Your task to perform on an android device: Add acer nitro to the cart on bestbuy Image 0: 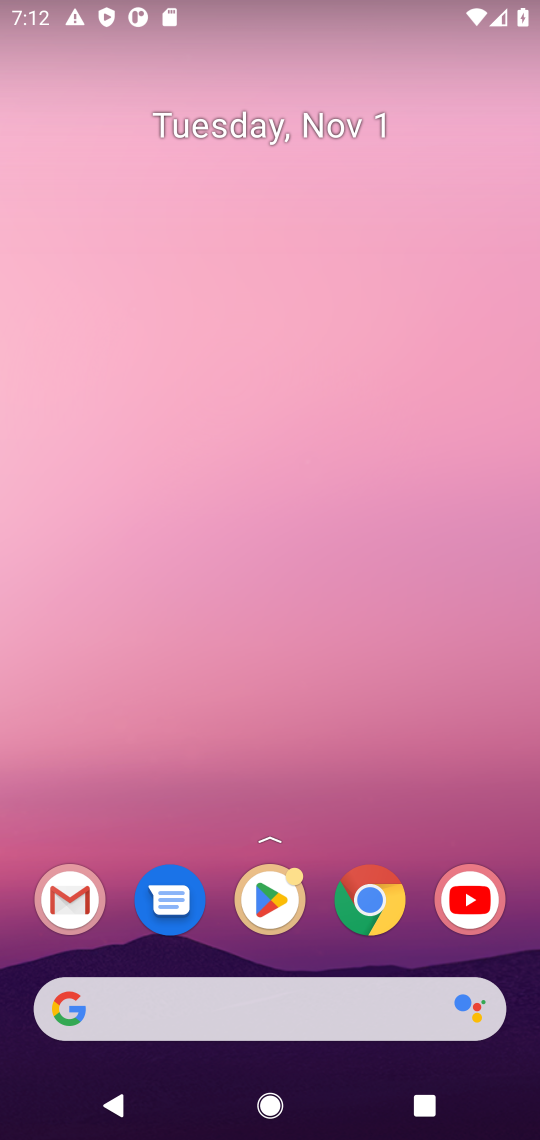
Step 0: drag from (314, 959) to (351, 139)
Your task to perform on an android device: Add acer nitro to the cart on bestbuy Image 1: 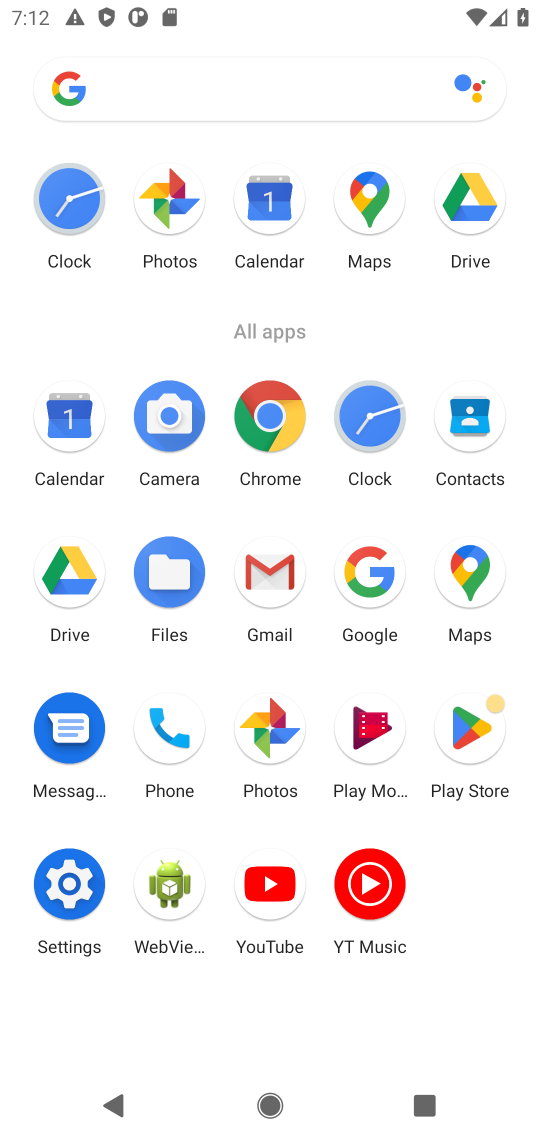
Step 1: click (270, 426)
Your task to perform on an android device: Add acer nitro to the cart on bestbuy Image 2: 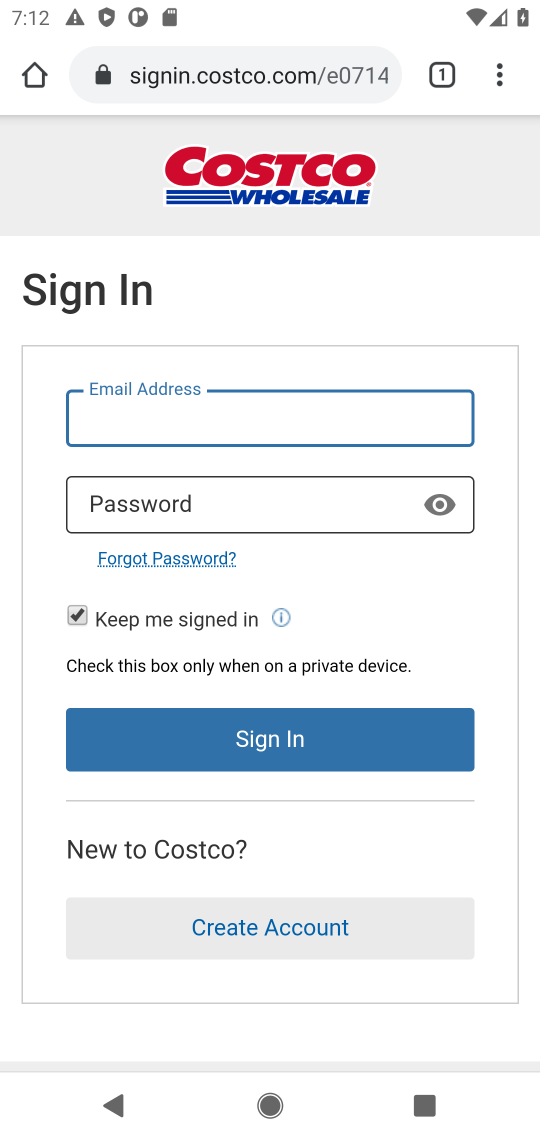
Step 2: click (285, 82)
Your task to perform on an android device: Add acer nitro to the cart on bestbuy Image 3: 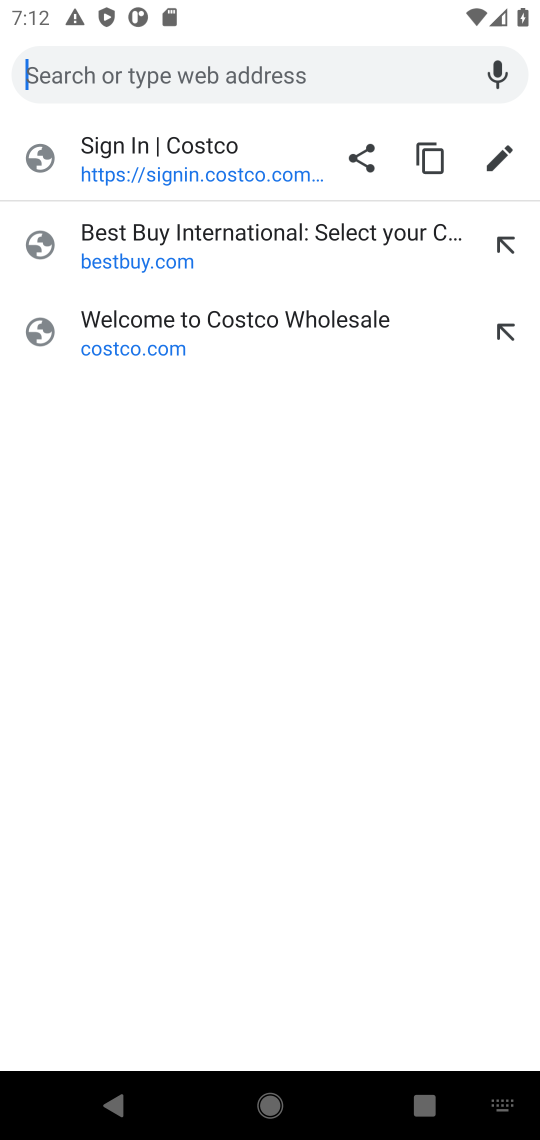
Step 3: type "bestbuy.com"
Your task to perform on an android device: Add acer nitro to the cart on bestbuy Image 4: 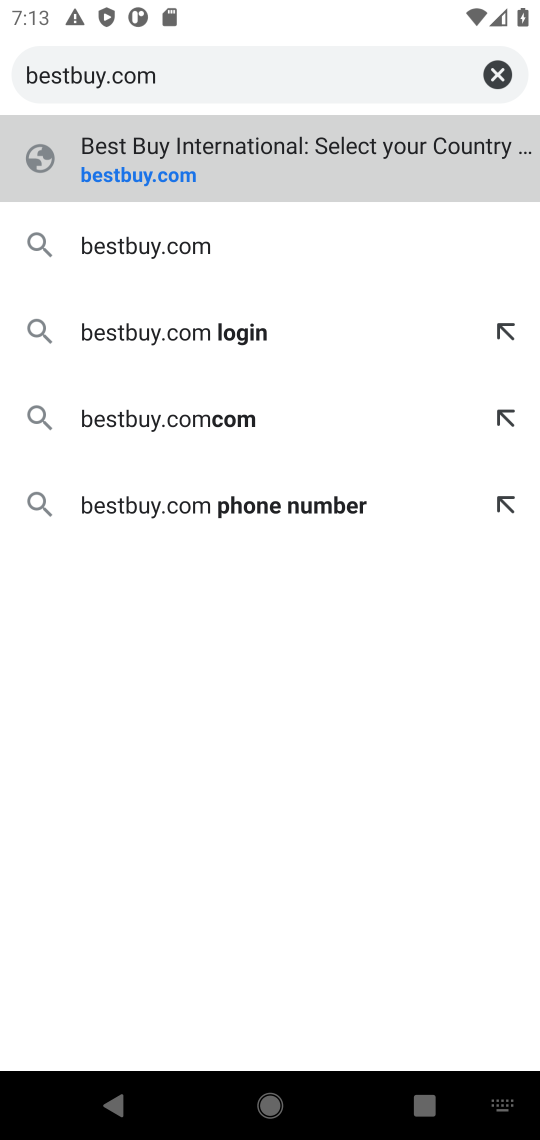
Step 4: click (273, 195)
Your task to perform on an android device: Add acer nitro to the cart on bestbuy Image 5: 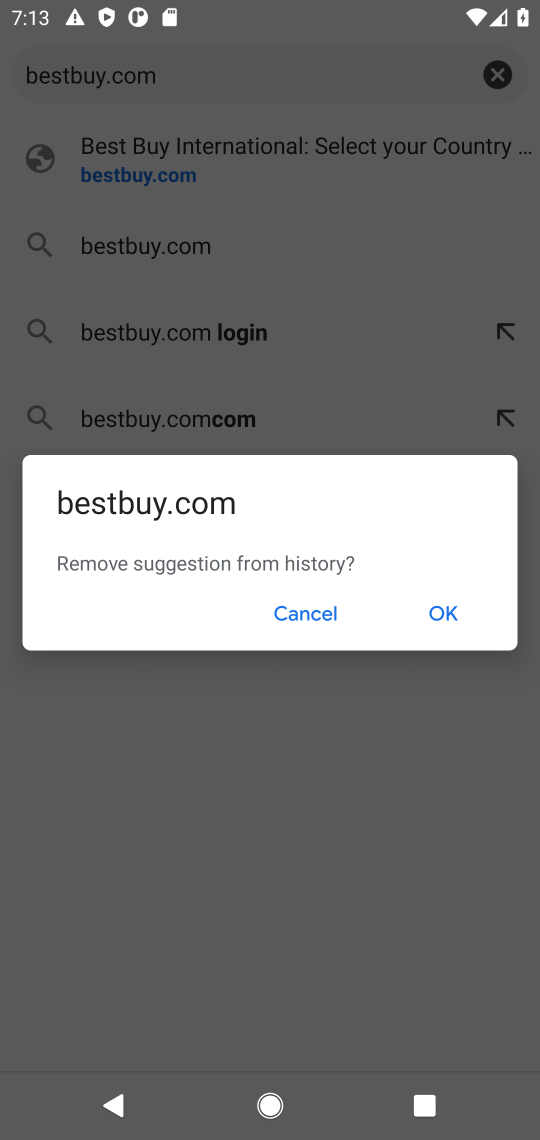
Step 5: click (309, 615)
Your task to perform on an android device: Add acer nitro to the cart on bestbuy Image 6: 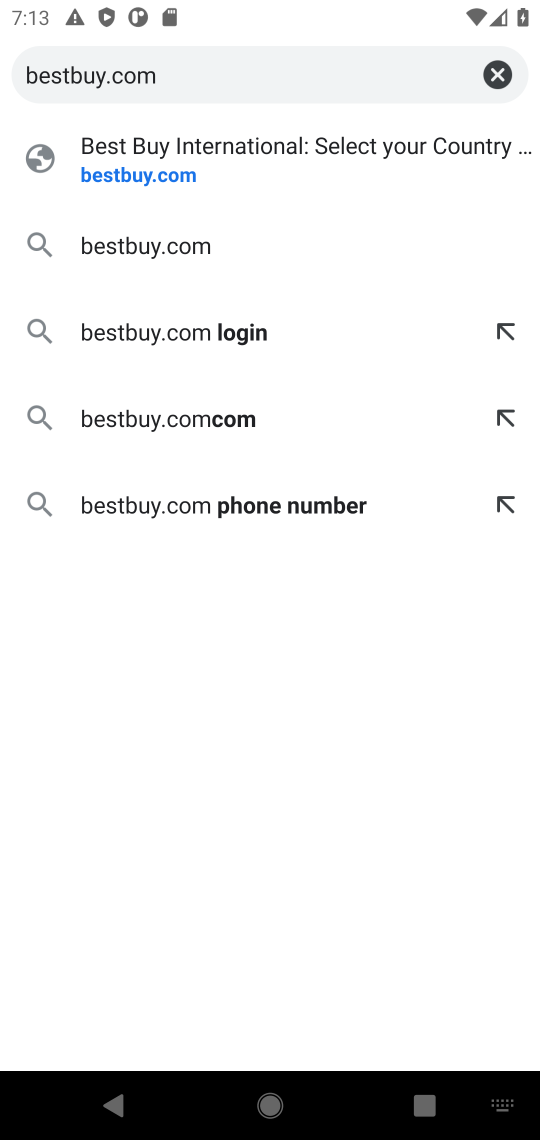
Step 6: click (169, 174)
Your task to perform on an android device: Add acer nitro to the cart on bestbuy Image 7: 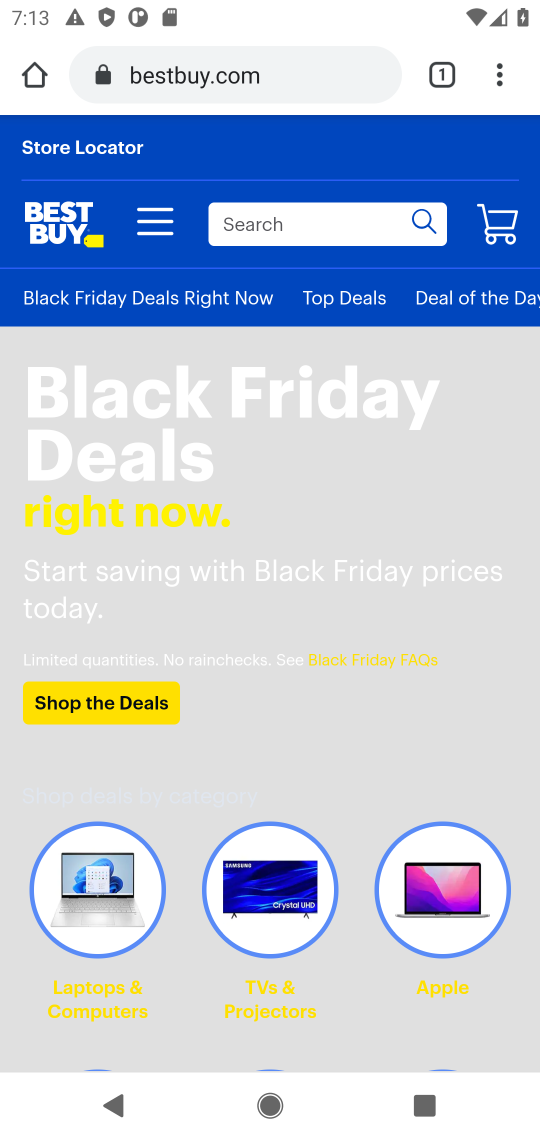
Step 7: click (280, 232)
Your task to perform on an android device: Add acer nitro to the cart on bestbuy Image 8: 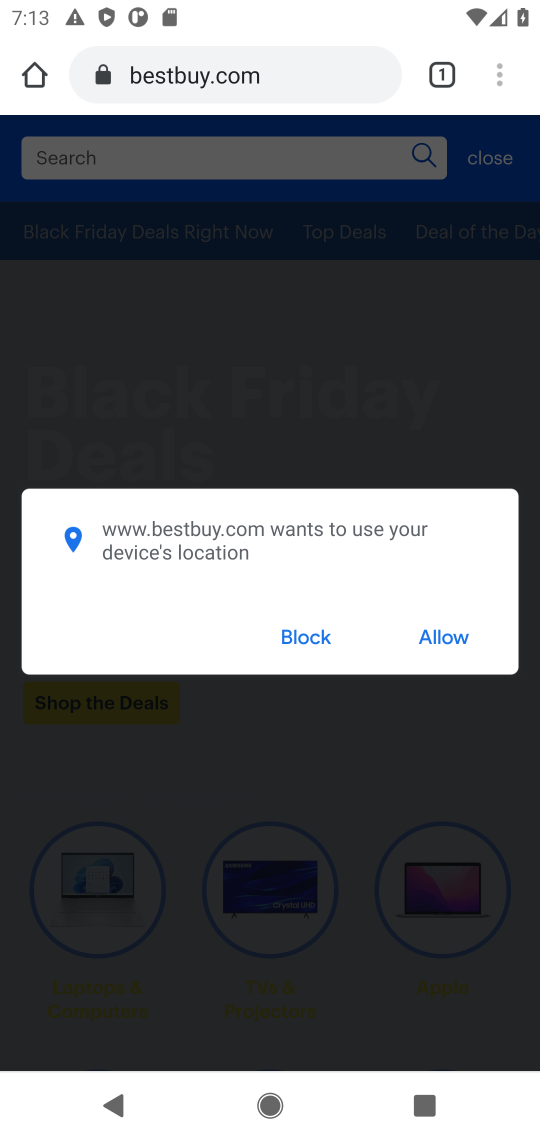
Step 8: type "acer nitro"
Your task to perform on an android device: Add acer nitro to the cart on bestbuy Image 9: 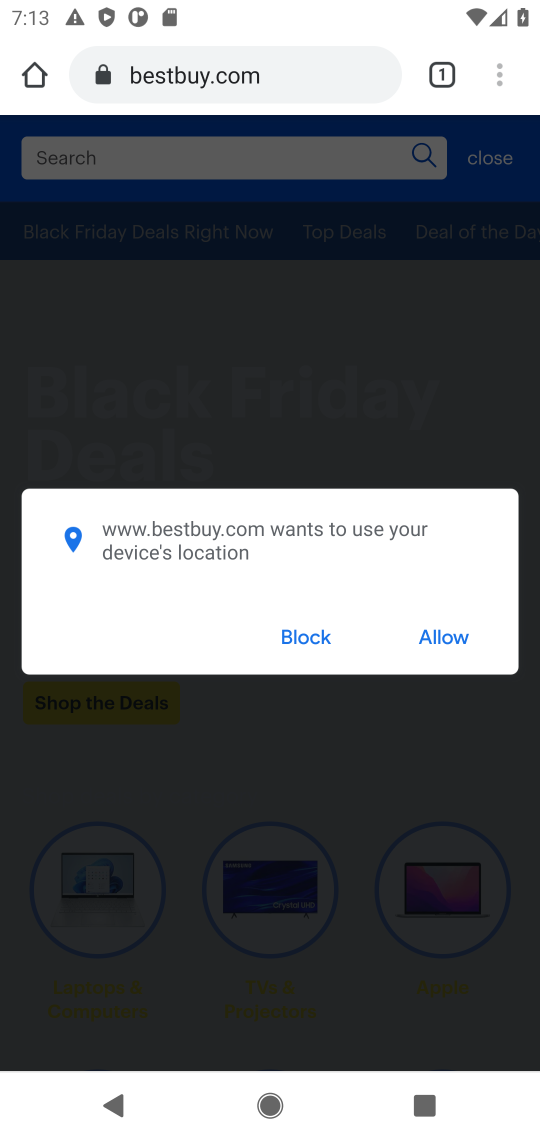
Step 9: press enter
Your task to perform on an android device: Add acer nitro to the cart on bestbuy Image 10: 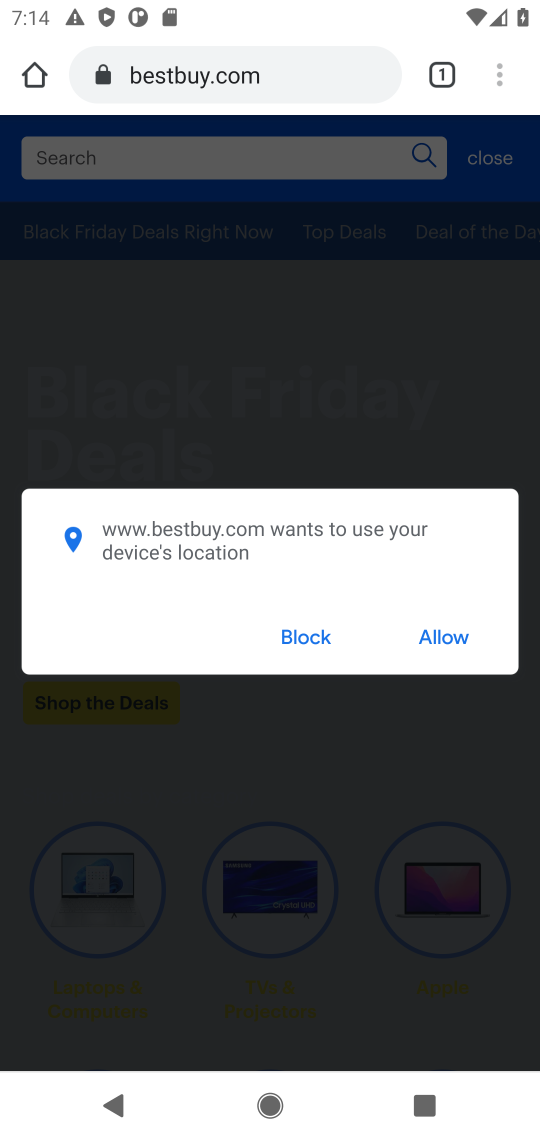
Step 10: click (299, 630)
Your task to perform on an android device: Add acer nitro to the cart on bestbuy Image 11: 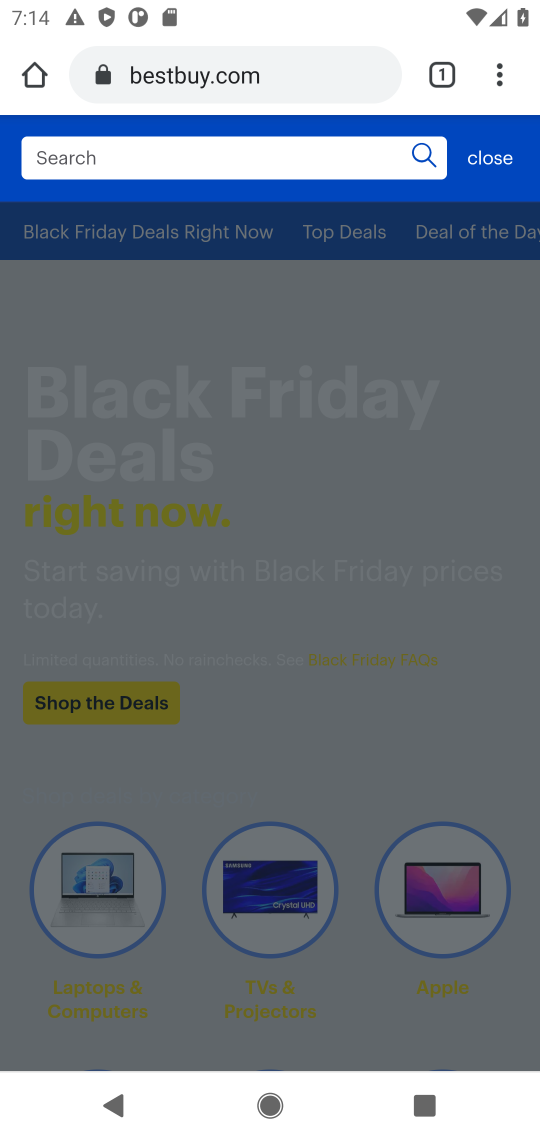
Step 11: click (353, 168)
Your task to perform on an android device: Add acer nitro to the cart on bestbuy Image 12: 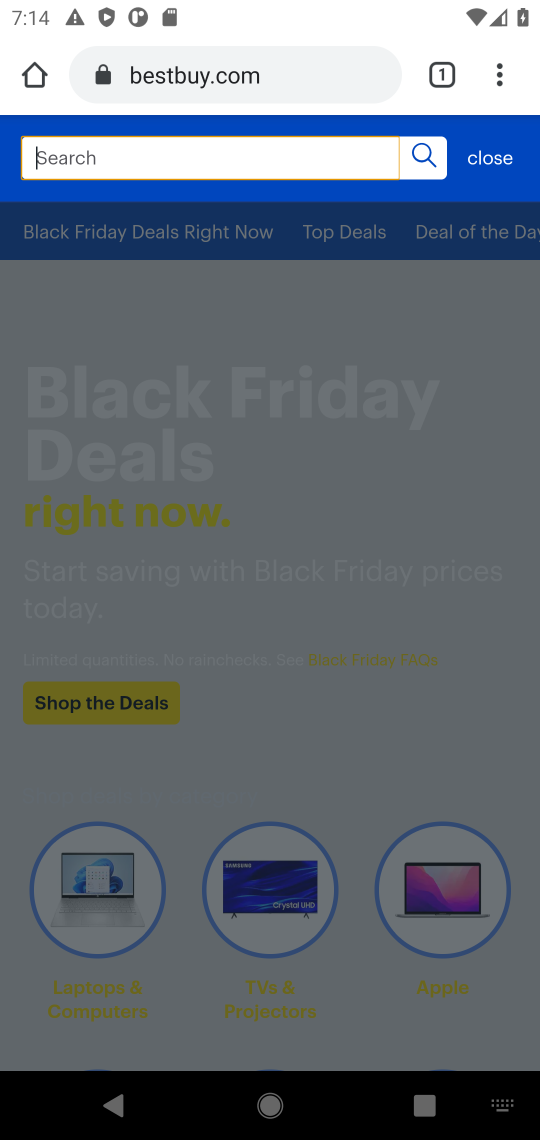
Step 12: type "acer nitro"
Your task to perform on an android device: Add acer nitro to the cart on bestbuy Image 13: 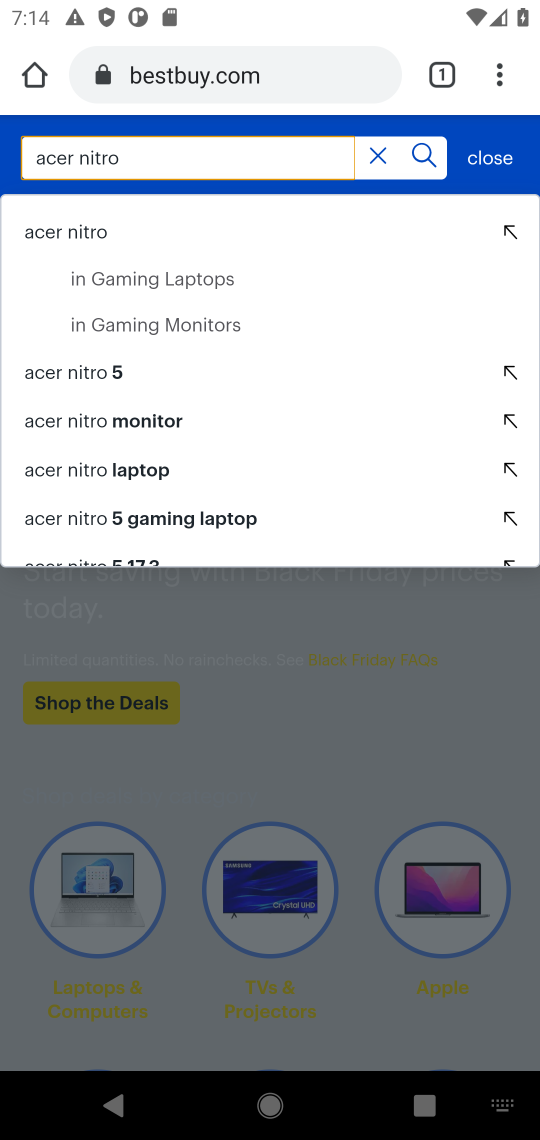
Step 13: press enter
Your task to perform on an android device: Add acer nitro to the cart on bestbuy Image 14: 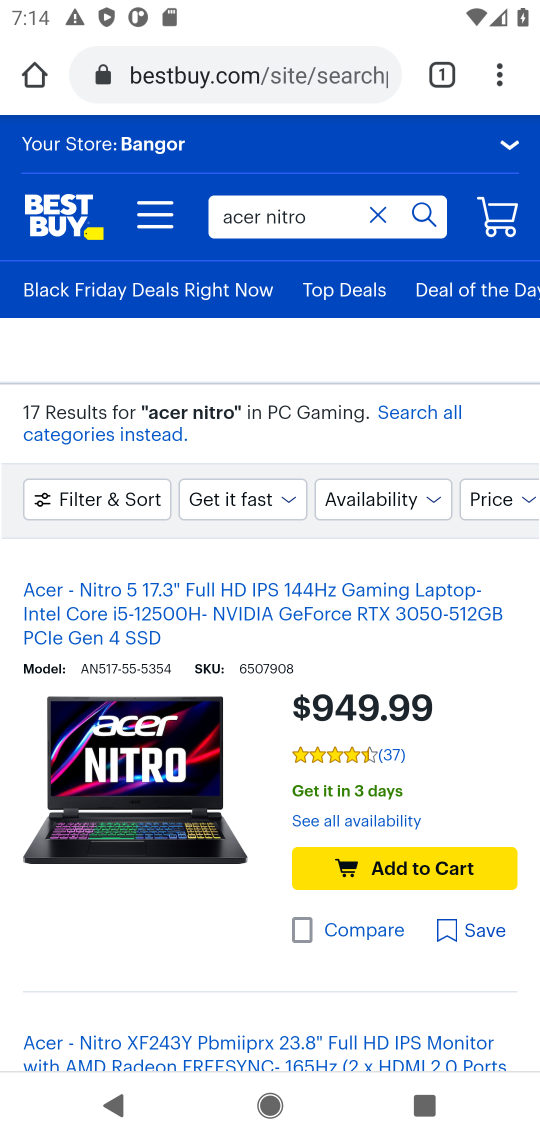
Step 14: drag from (327, 845) to (339, 255)
Your task to perform on an android device: Add acer nitro to the cart on bestbuy Image 15: 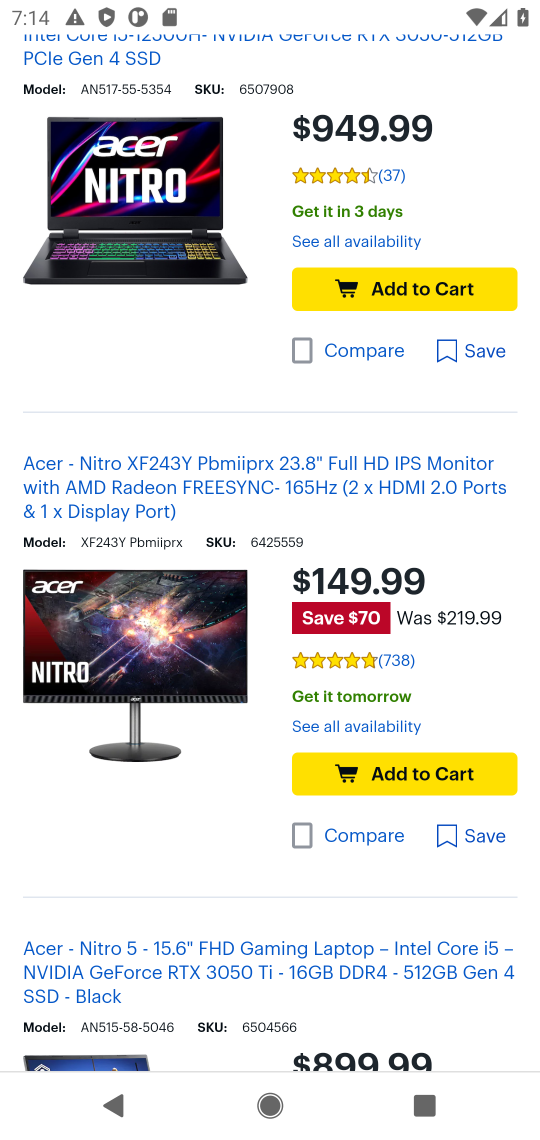
Step 15: drag from (282, 419) to (187, 900)
Your task to perform on an android device: Add acer nitro to the cart on bestbuy Image 16: 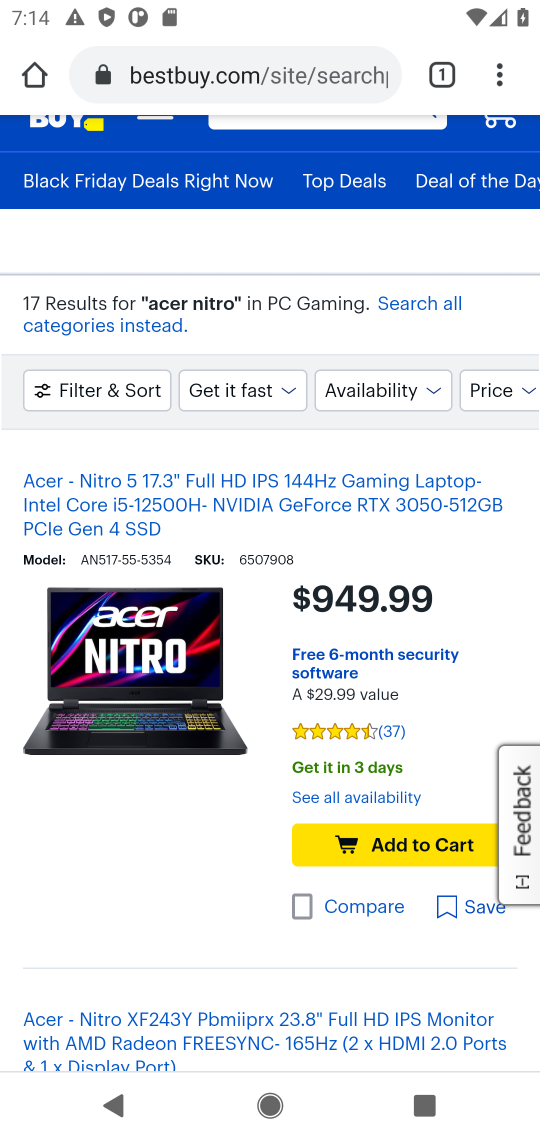
Step 16: click (444, 834)
Your task to perform on an android device: Add acer nitro to the cart on bestbuy Image 17: 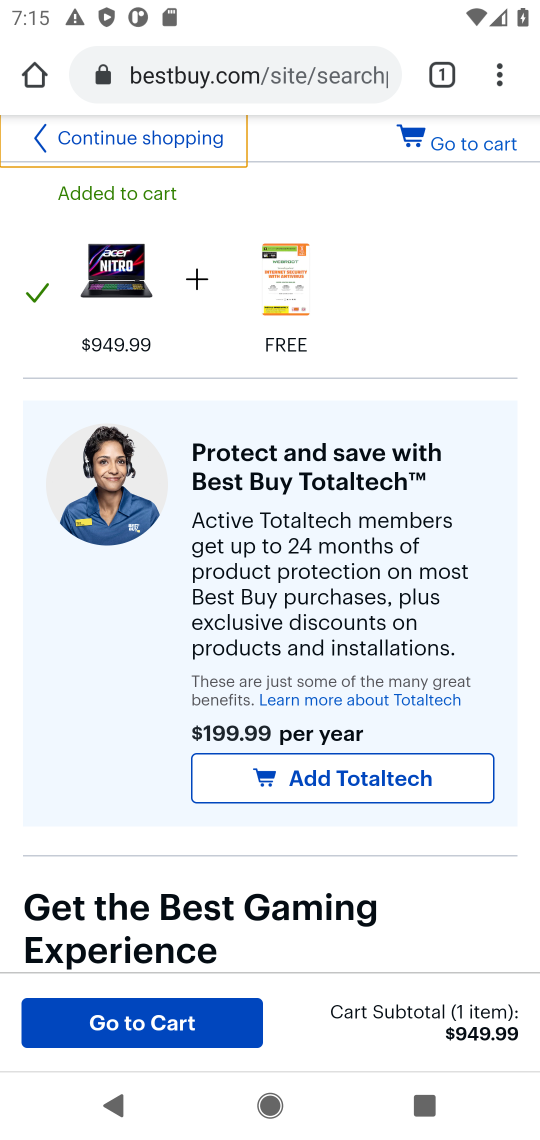
Step 17: task complete